Your task to perform on an android device: turn off wifi Image 0: 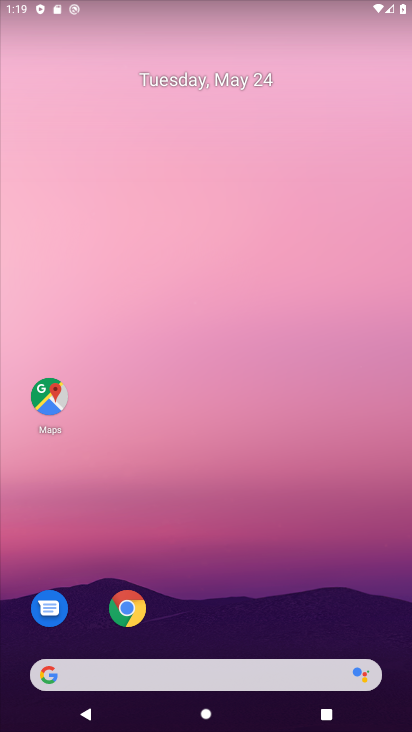
Step 0: drag from (209, 622) to (237, 226)
Your task to perform on an android device: turn off wifi Image 1: 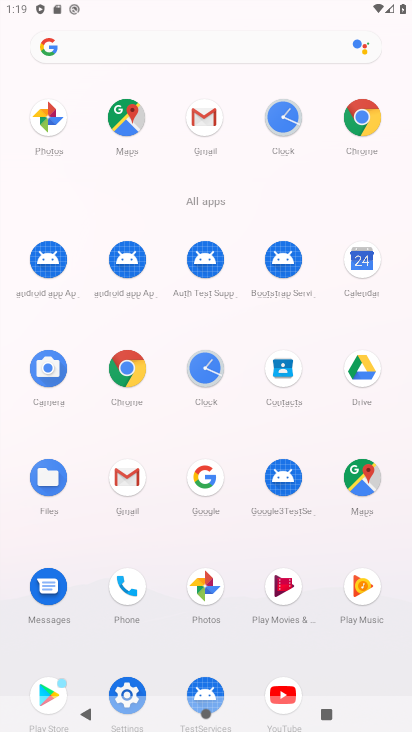
Step 1: click (132, 690)
Your task to perform on an android device: turn off wifi Image 2: 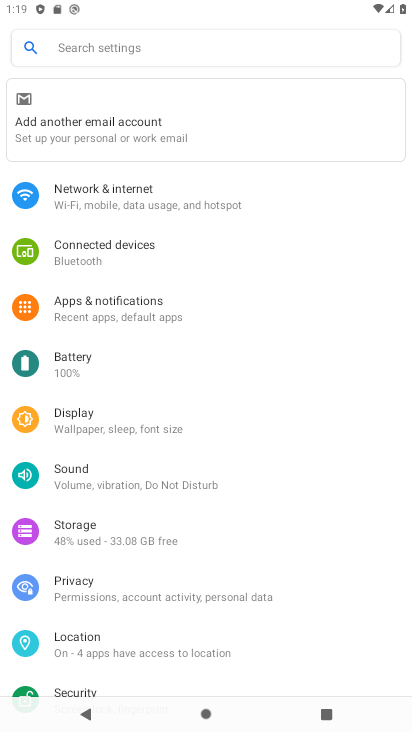
Step 2: click (183, 178)
Your task to perform on an android device: turn off wifi Image 3: 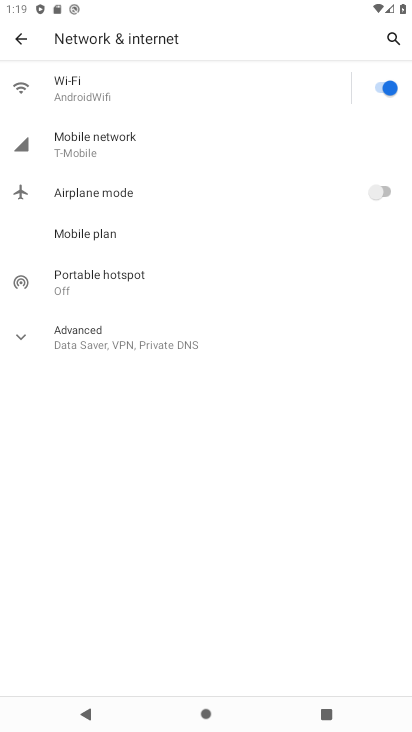
Step 3: click (386, 85)
Your task to perform on an android device: turn off wifi Image 4: 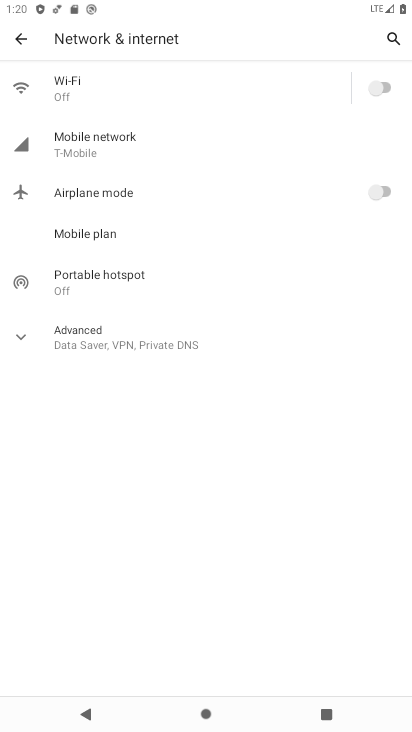
Step 4: task complete